Your task to perform on an android device: Turn off the flashlight Image 0: 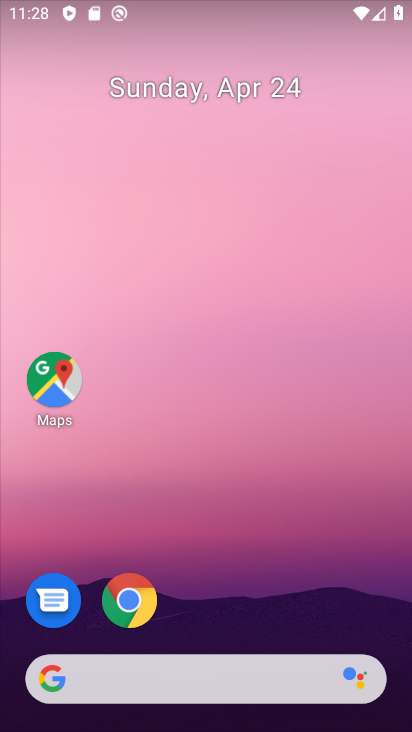
Step 0: drag from (258, 1) to (257, 437)
Your task to perform on an android device: Turn off the flashlight Image 1: 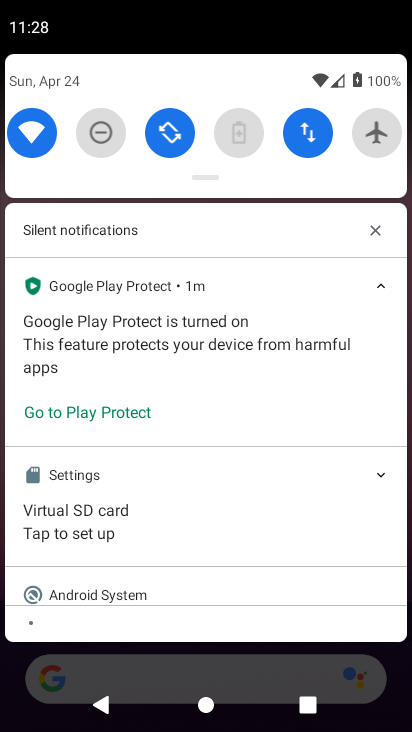
Step 1: task complete